Your task to perform on an android device: toggle improve location accuracy Image 0: 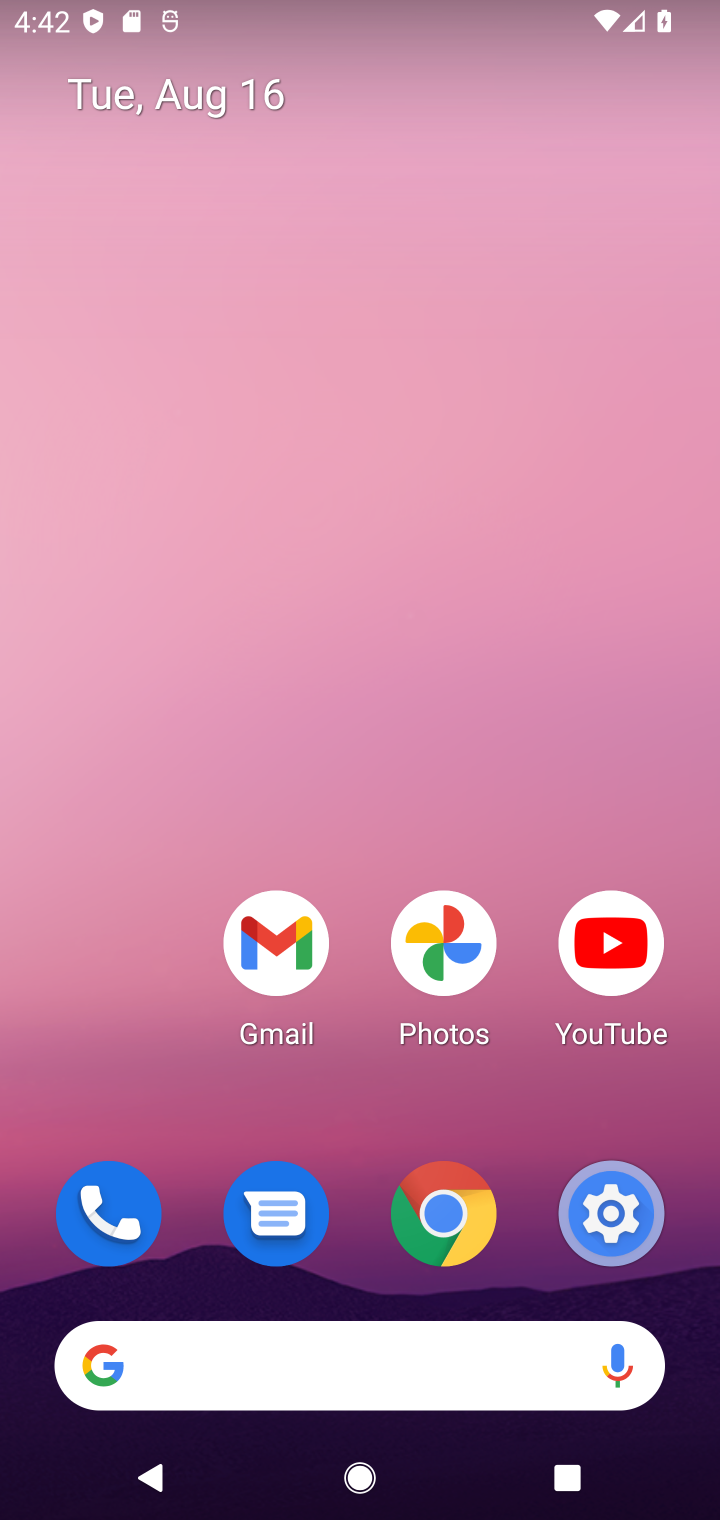
Step 0: drag from (347, 1099) to (479, 0)
Your task to perform on an android device: toggle improve location accuracy Image 1: 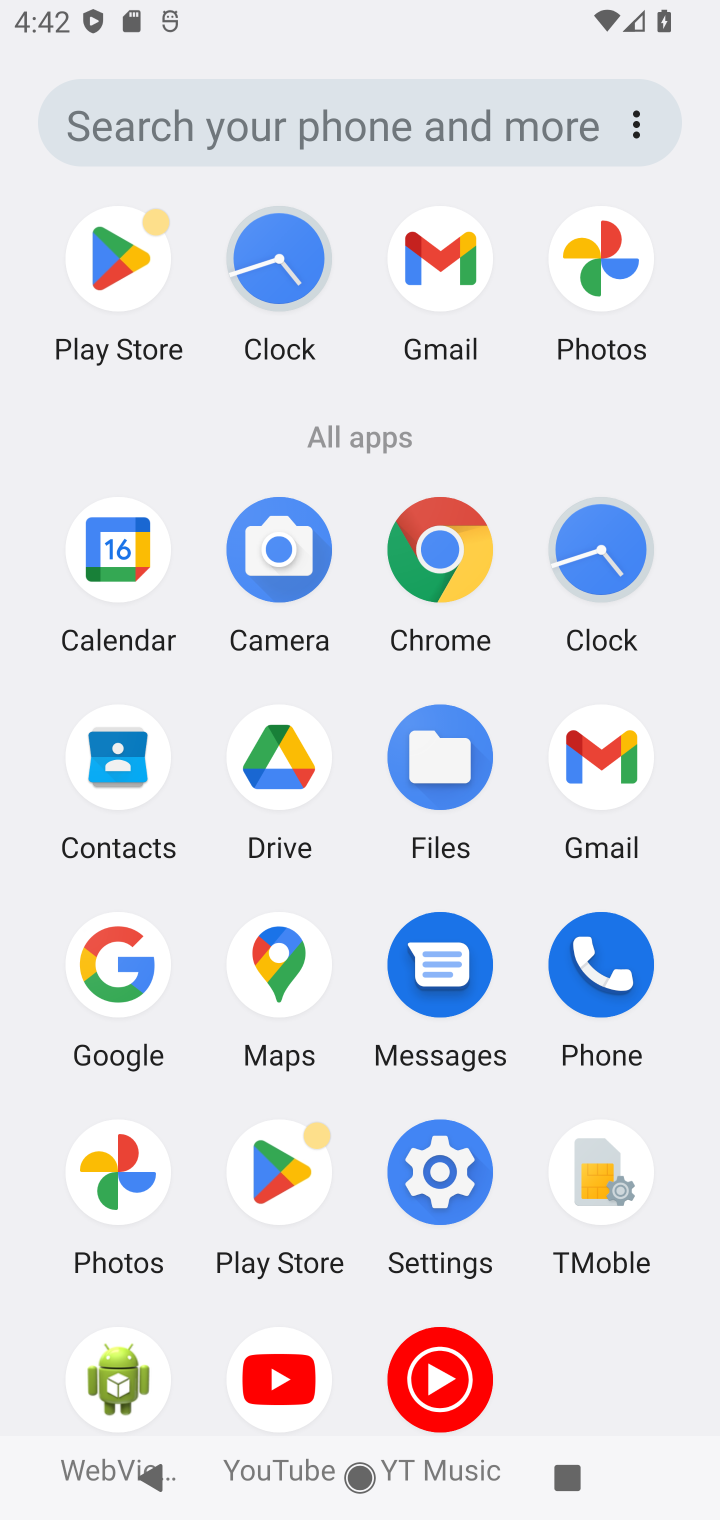
Step 1: click (428, 1167)
Your task to perform on an android device: toggle improve location accuracy Image 2: 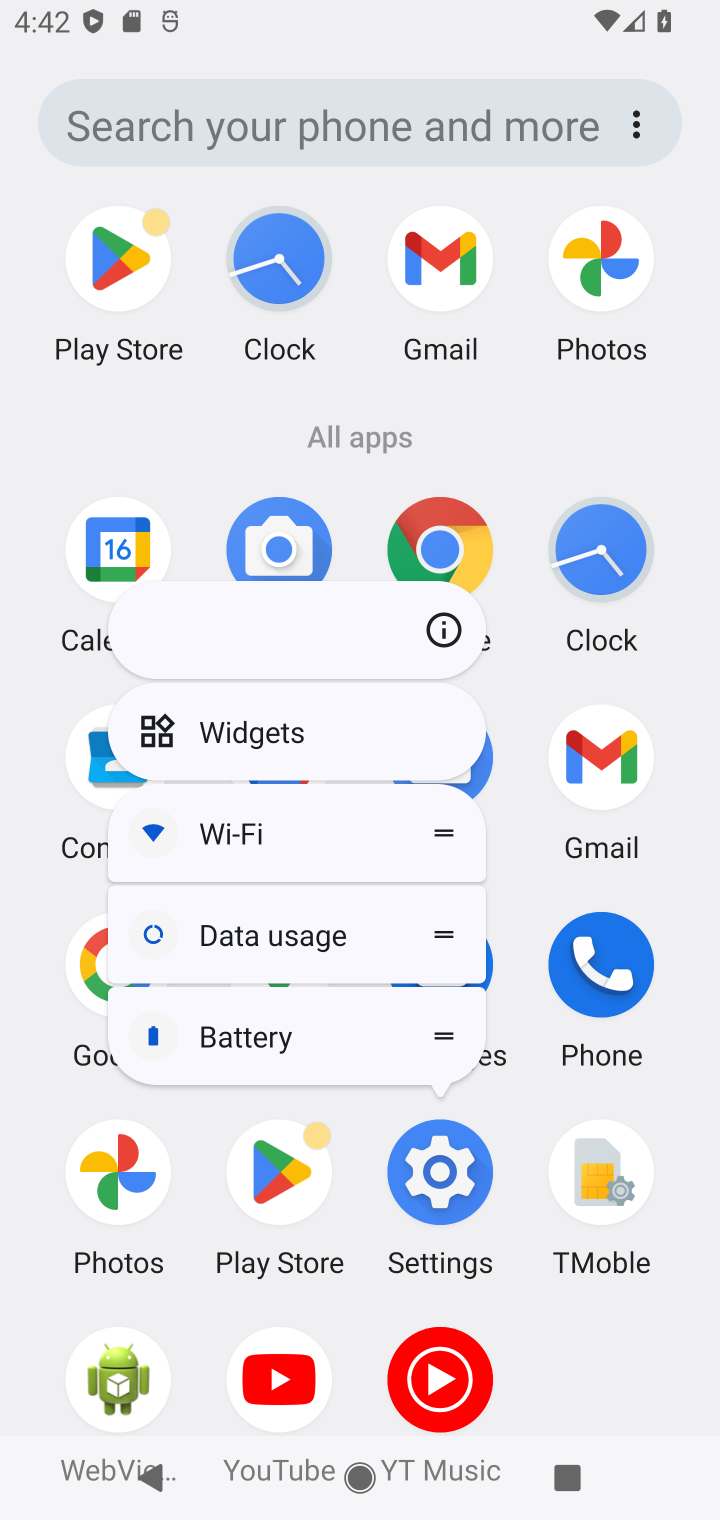
Step 2: click (452, 1188)
Your task to perform on an android device: toggle improve location accuracy Image 3: 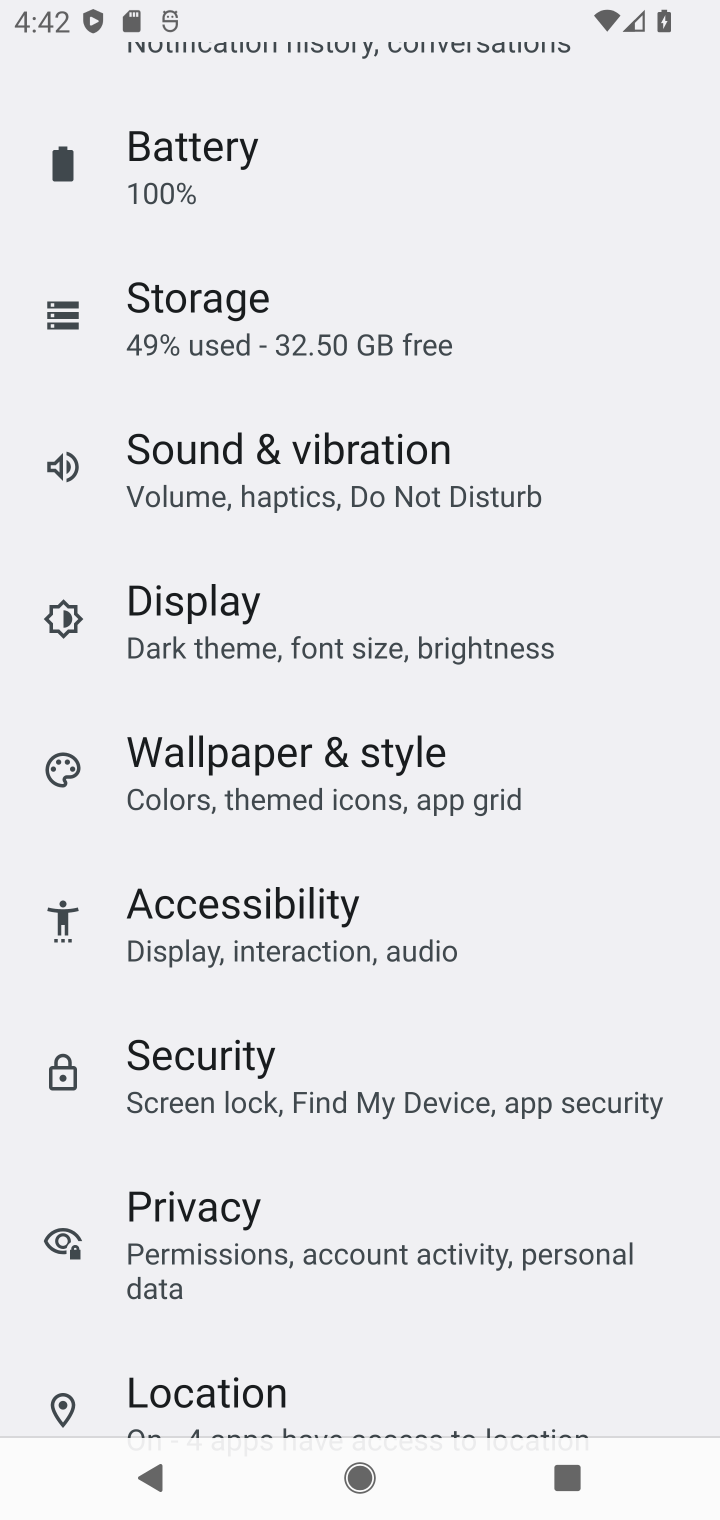
Step 3: click (255, 1401)
Your task to perform on an android device: toggle improve location accuracy Image 4: 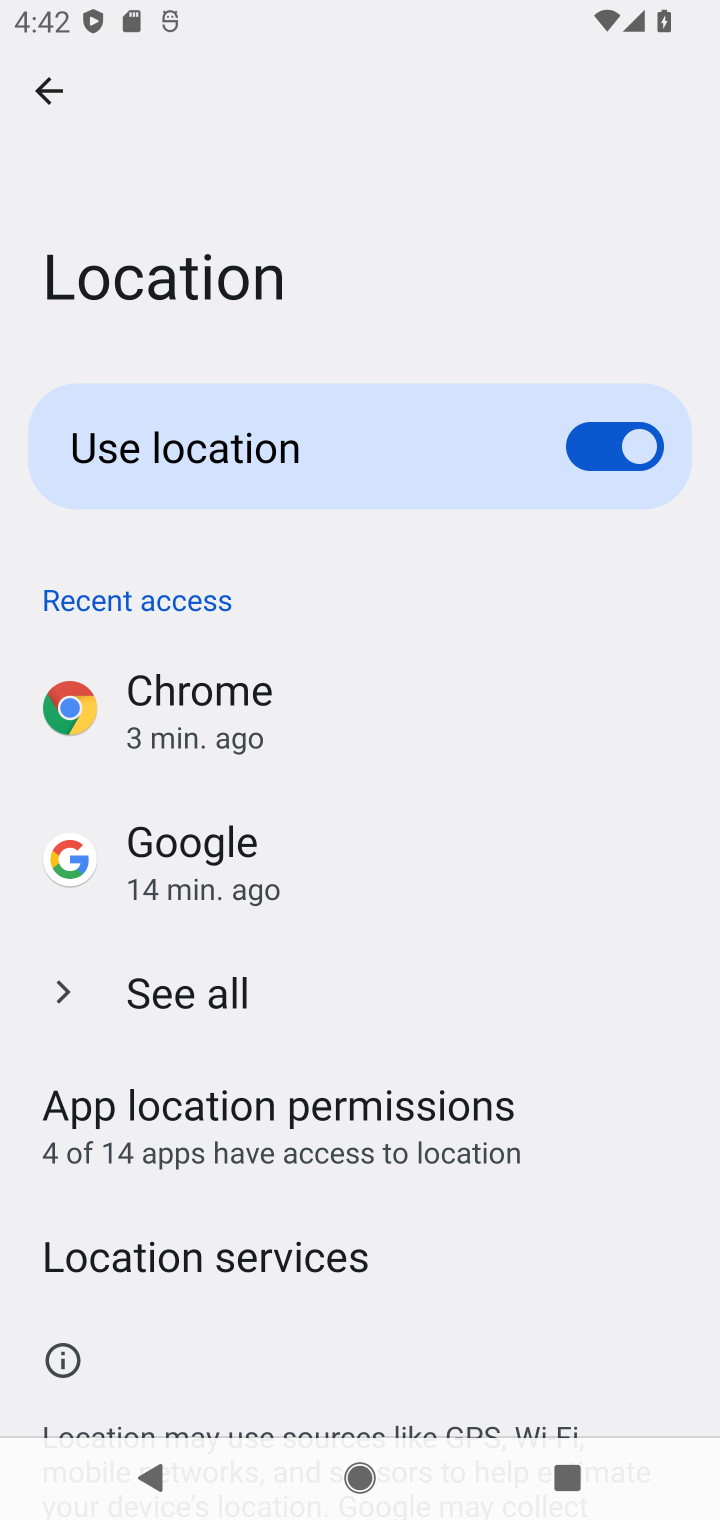
Step 4: drag from (496, 1290) to (532, 365)
Your task to perform on an android device: toggle improve location accuracy Image 5: 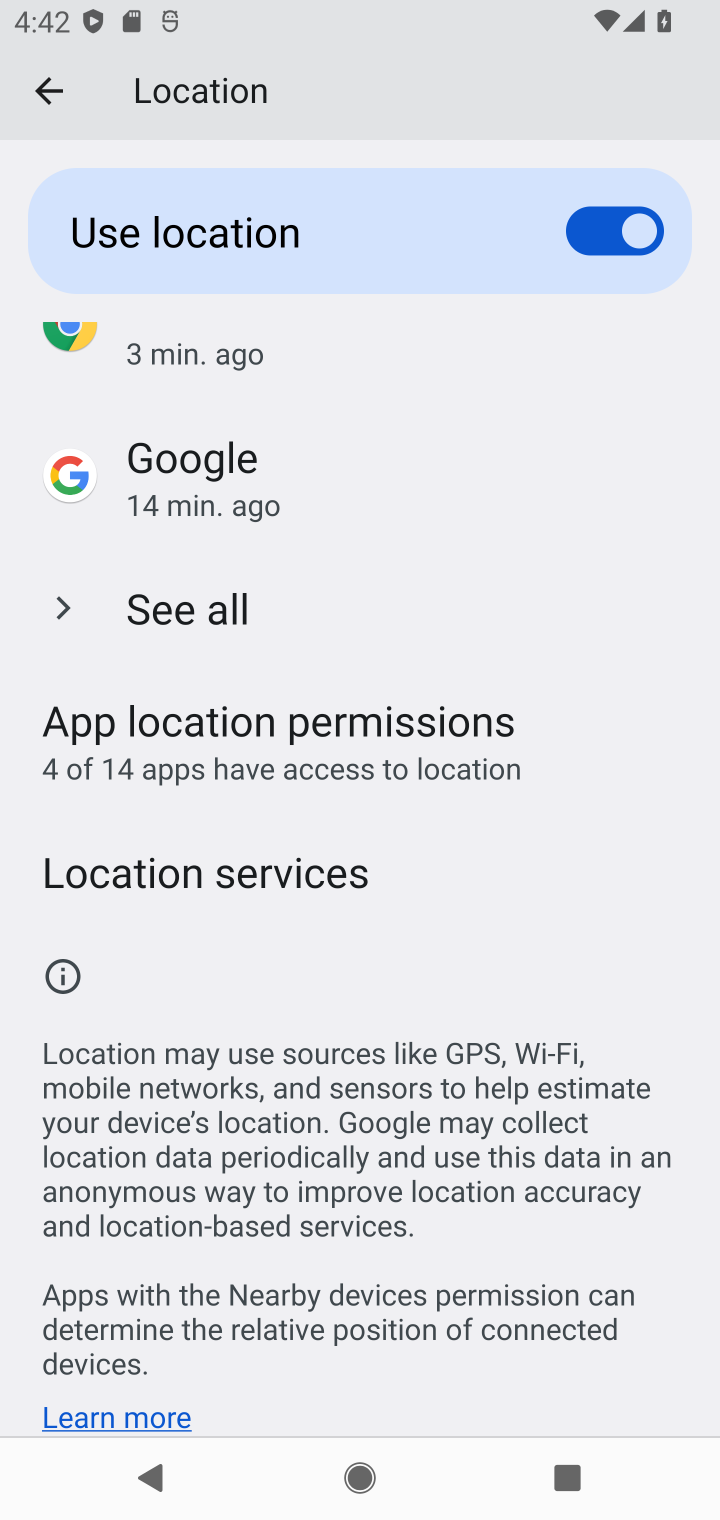
Step 5: click (244, 852)
Your task to perform on an android device: toggle improve location accuracy Image 6: 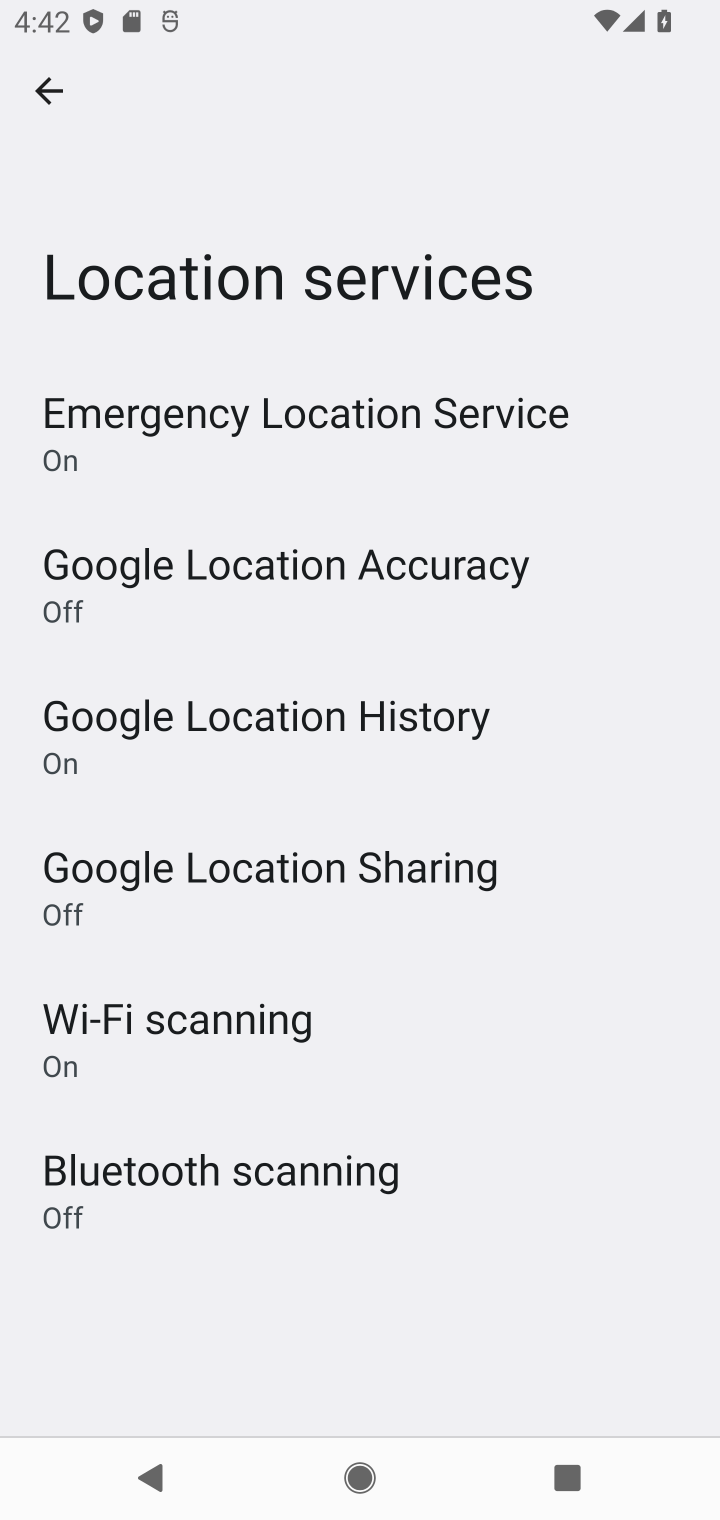
Step 6: click (379, 562)
Your task to perform on an android device: toggle improve location accuracy Image 7: 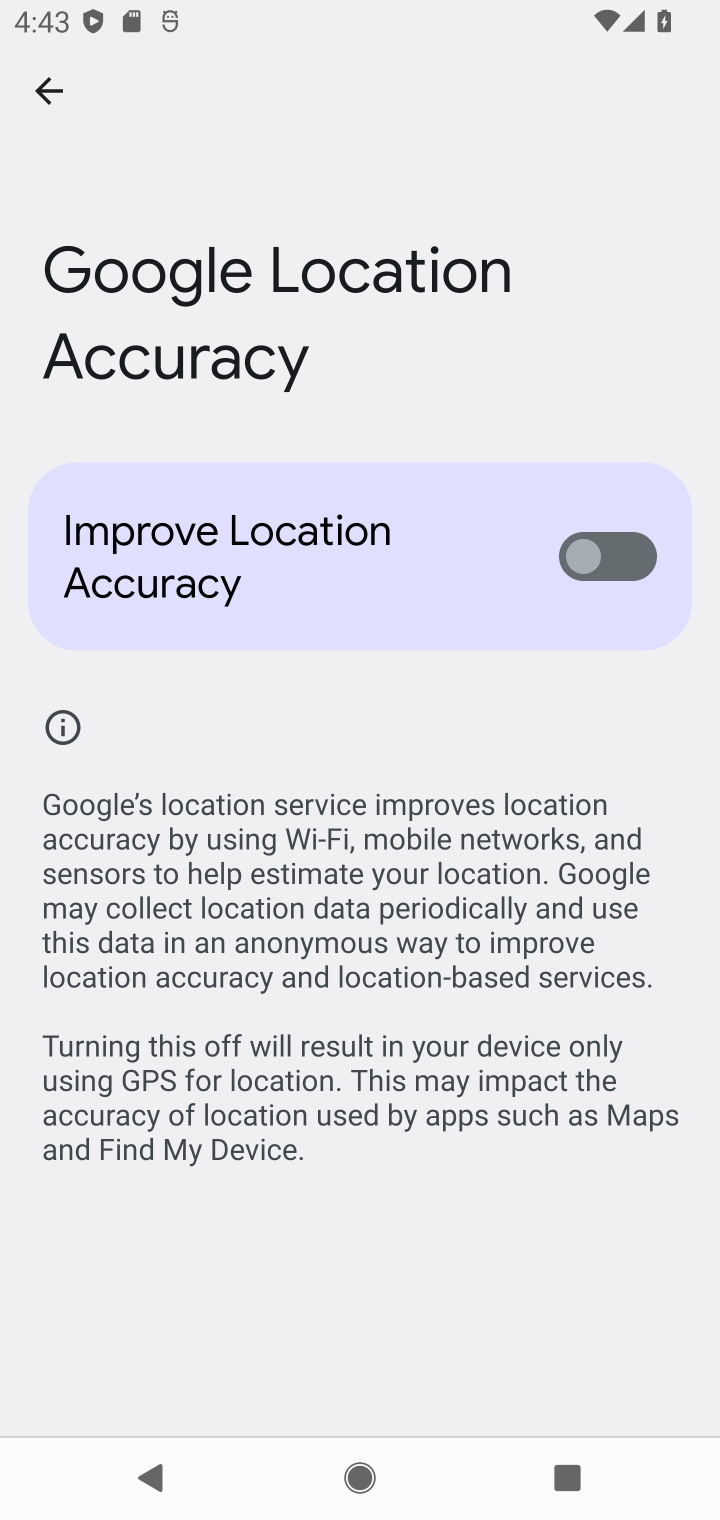
Step 7: task complete